Your task to perform on an android device: change the clock display to digital Image 0: 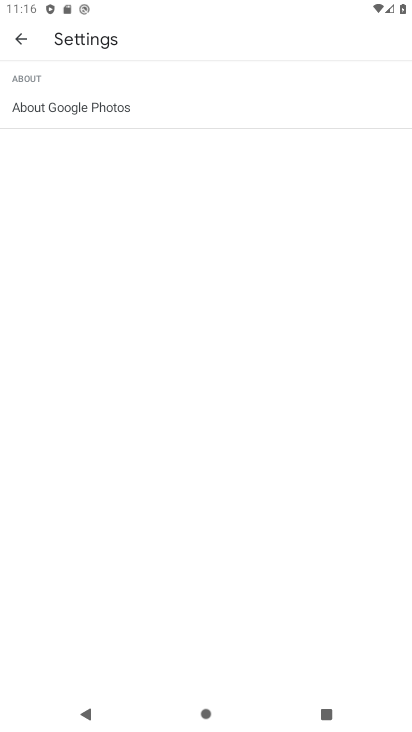
Step 0: press home button
Your task to perform on an android device: change the clock display to digital Image 1: 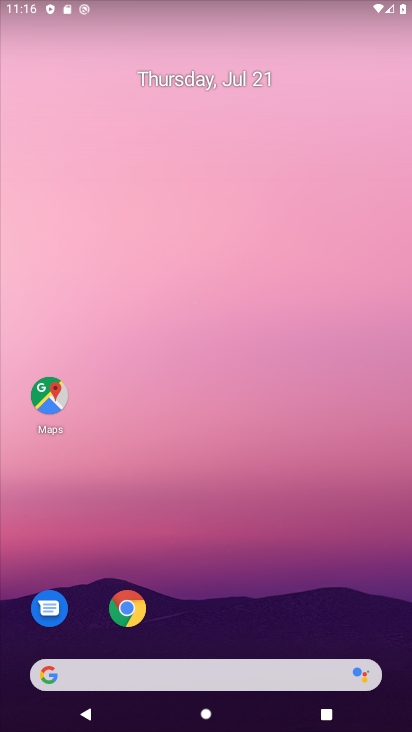
Step 1: drag from (222, 471) to (211, 18)
Your task to perform on an android device: change the clock display to digital Image 2: 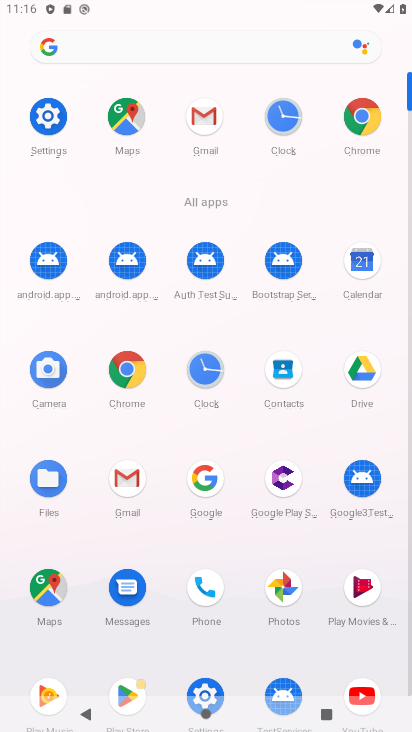
Step 2: click (210, 375)
Your task to perform on an android device: change the clock display to digital Image 3: 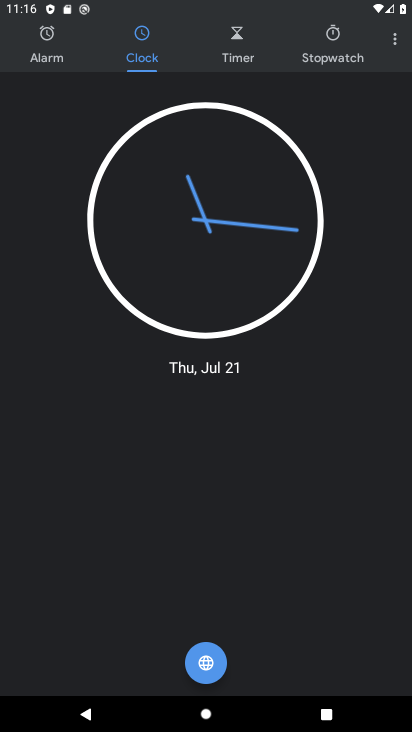
Step 3: click (385, 44)
Your task to perform on an android device: change the clock display to digital Image 4: 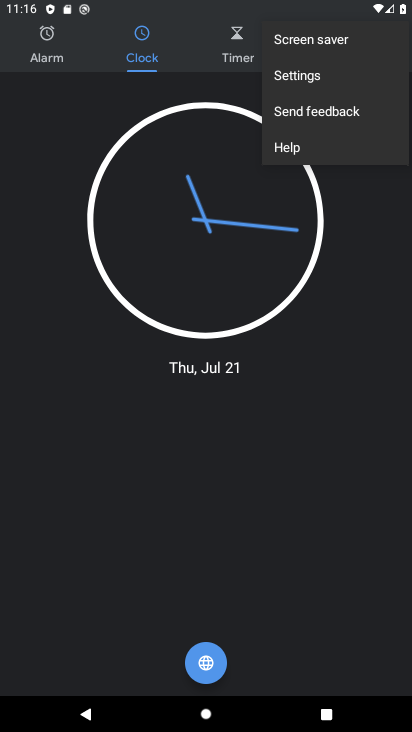
Step 4: click (316, 81)
Your task to perform on an android device: change the clock display to digital Image 5: 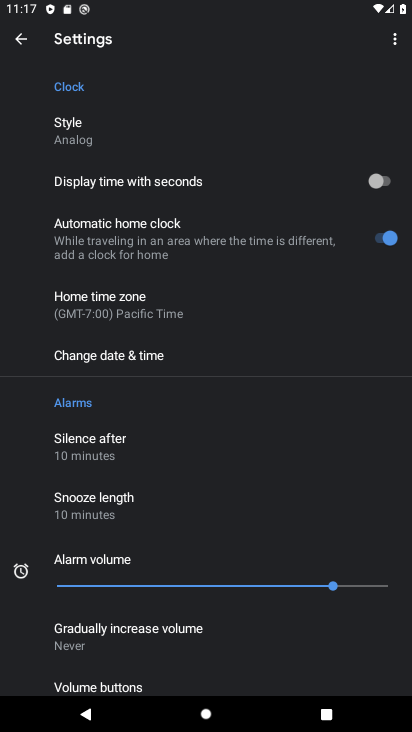
Step 5: click (83, 134)
Your task to perform on an android device: change the clock display to digital Image 6: 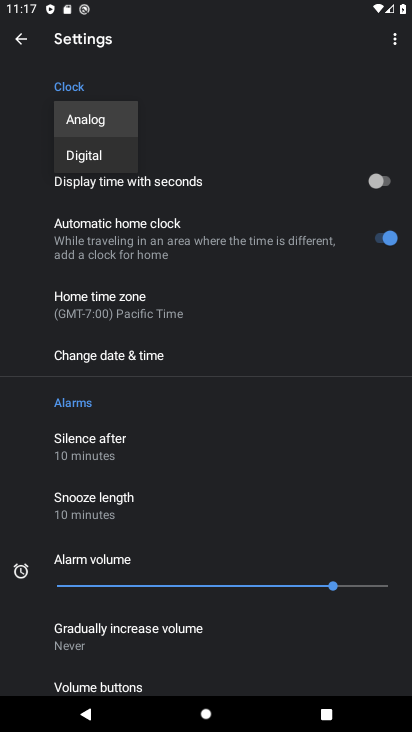
Step 6: click (97, 159)
Your task to perform on an android device: change the clock display to digital Image 7: 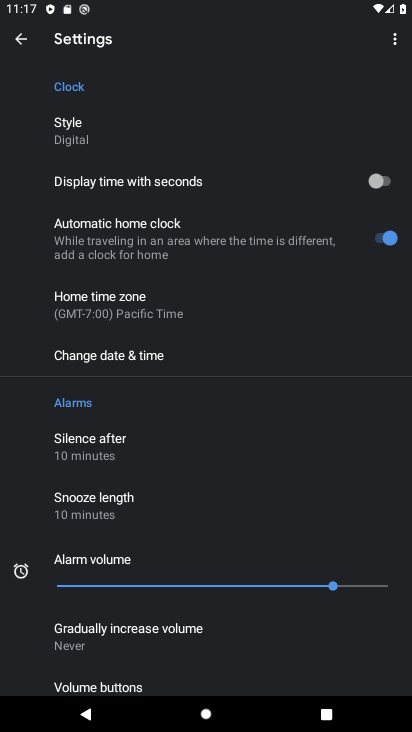
Step 7: task complete